Your task to perform on an android device: choose inbox layout in the gmail app Image 0: 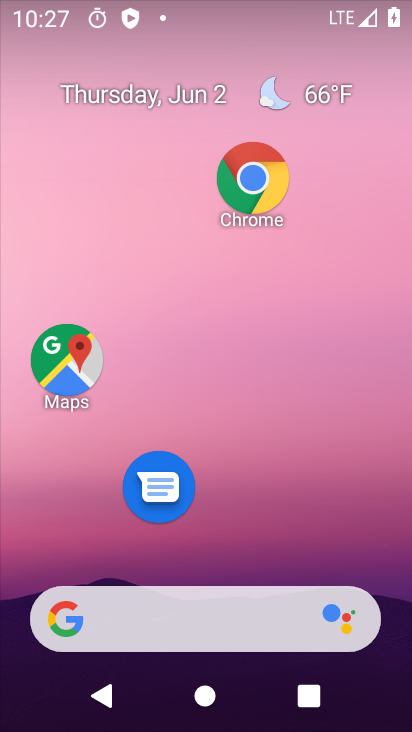
Step 0: drag from (243, 721) to (224, 161)
Your task to perform on an android device: choose inbox layout in the gmail app Image 1: 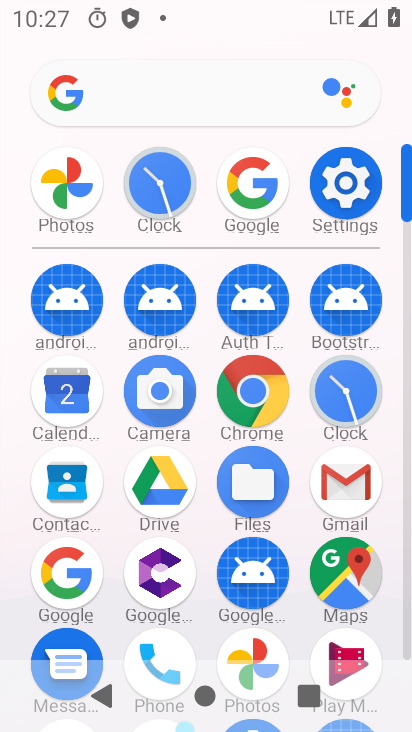
Step 1: click (347, 484)
Your task to perform on an android device: choose inbox layout in the gmail app Image 2: 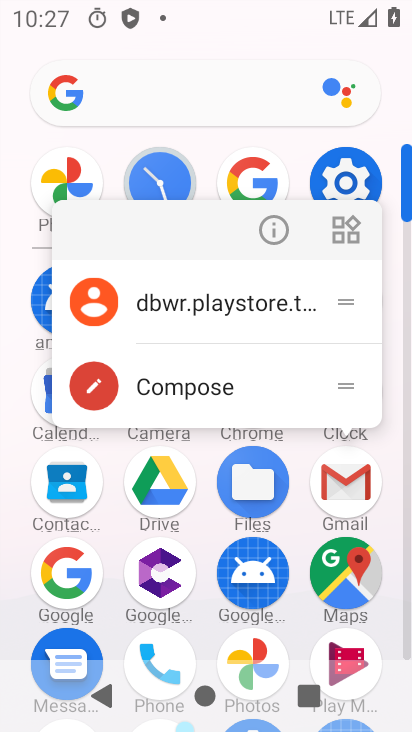
Step 2: click (349, 487)
Your task to perform on an android device: choose inbox layout in the gmail app Image 3: 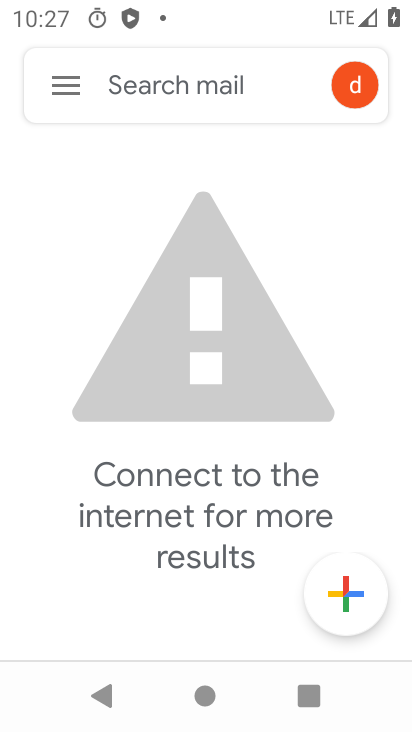
Step 3: click (64, 93)
Your task to perform on an android device: choose inbox layout in the gmail app Image 4: 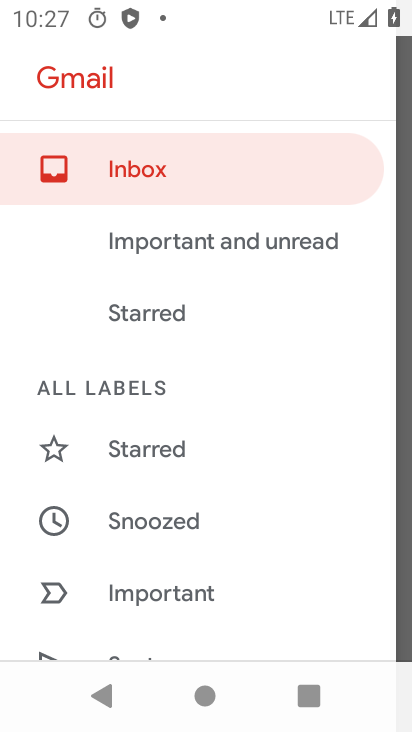
Step 4: drag from (164, 638) to (155, 213)
Your task to perform on an android device: choose inbox layout in the gmail app Image 5: 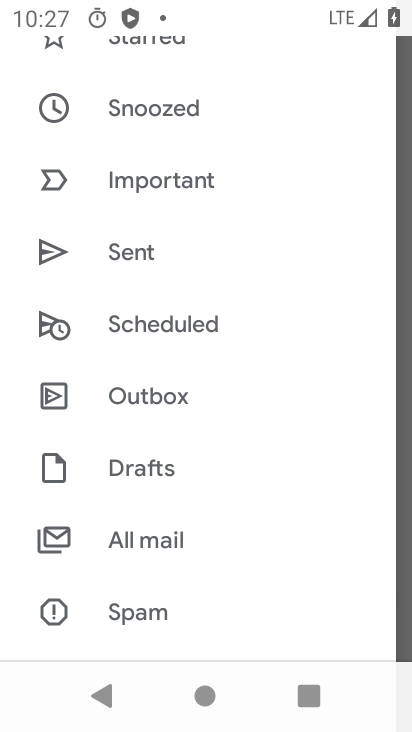
Step 5: drag from (135, 630) to (144, 239)
Your task to perform on an android device: choose inbox layout in the gmail app Image 6: 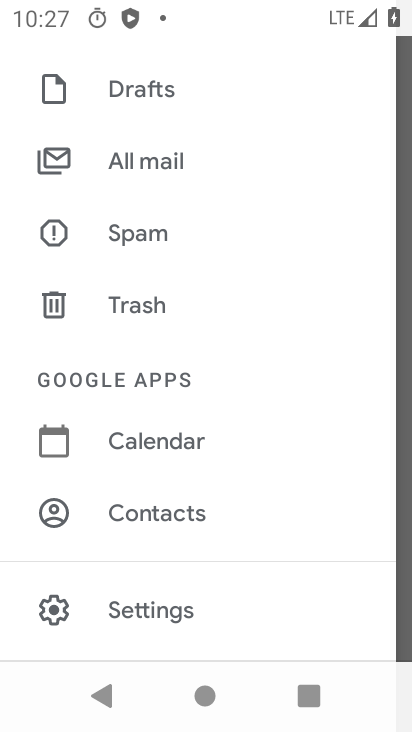
Step 6: click (143, 613)
Your task to perform on an android device: choose inbox layout in the gmail app Image 7: 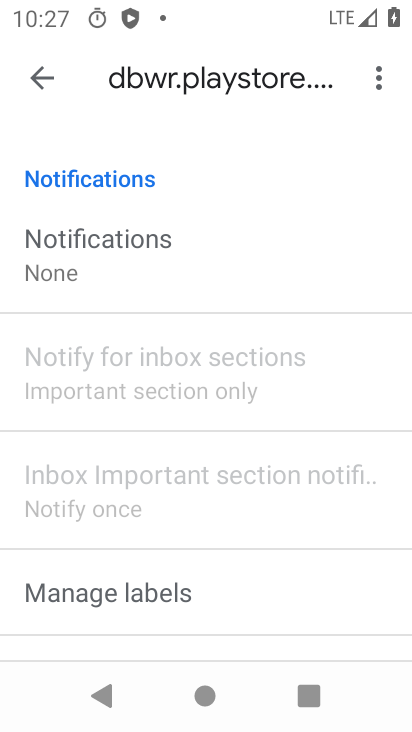
Step 7: drag from (187, 189) to (181, 489)
Your task to perform on an android device: choose inbox layout in the gmail app Image 8: 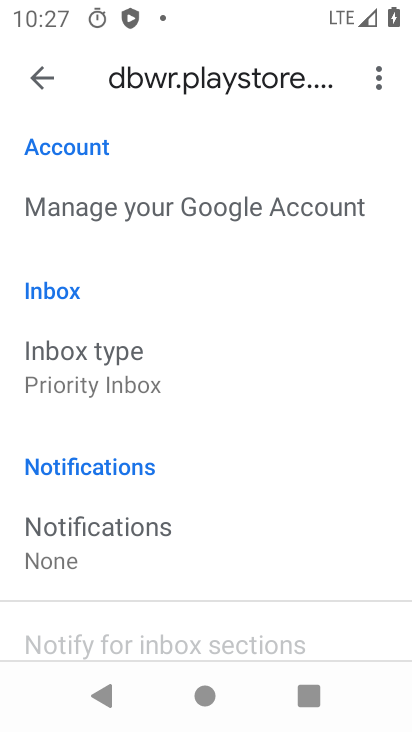
Step 8: click (112, 368)
Your task to perform on an android device: choose inbox layout in the gmail app Image 9: 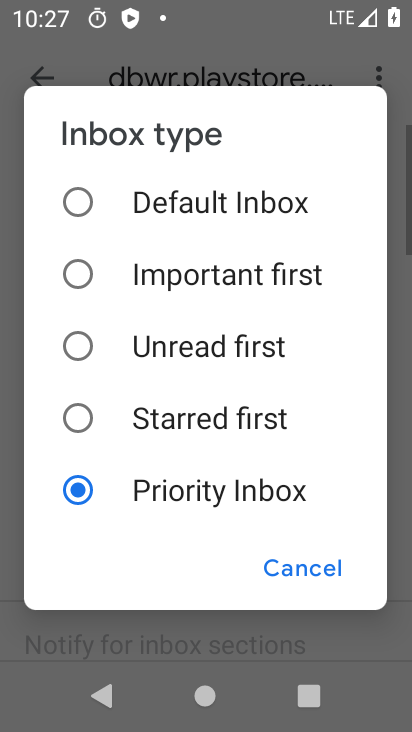
Step 9: click (92, 204)
Your task to perform on an android device: choose inbox layout in the gmail app Image 10: 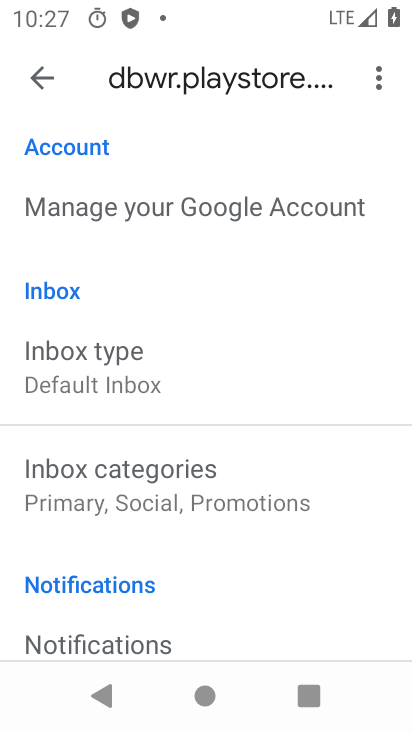
Step 10: task complete